Your task to perform on an android device: find photos in the google photos app Image 0: 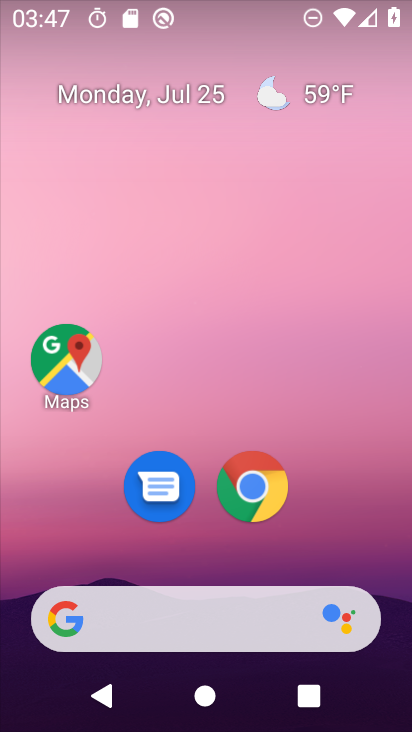
Step 0: drag from (179, 492) to (205, 0)
Your task to perform on an android device: find photos in the google photos app Image 1: 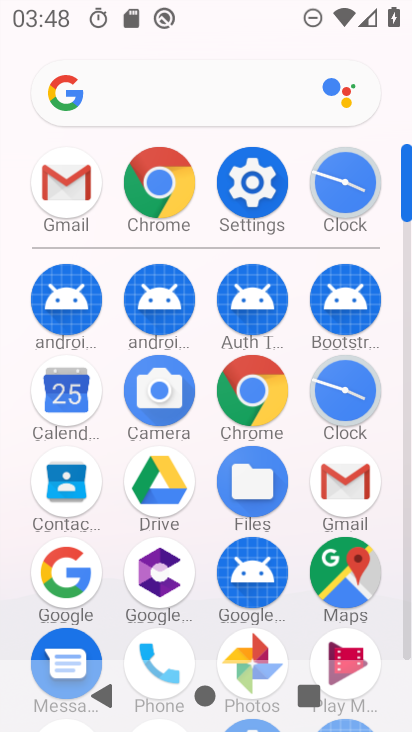
Step 1: click (257, 654)
Your task to perform on an android device: find photos in the google photos app Image 2: 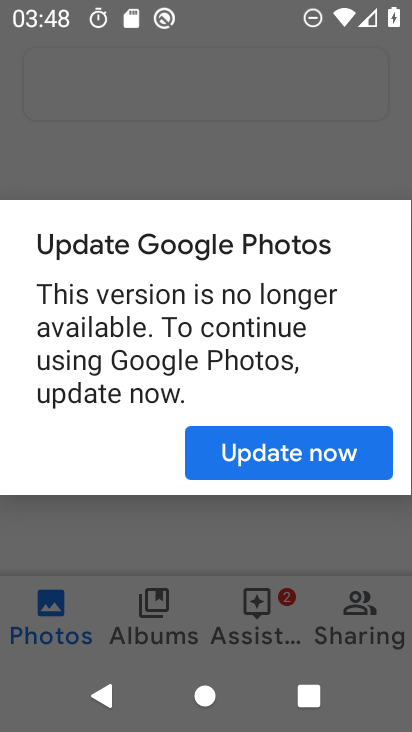
Step 2: click (274, 409)
Your task to perform on an android device: find photos in the google photos app Image 3: 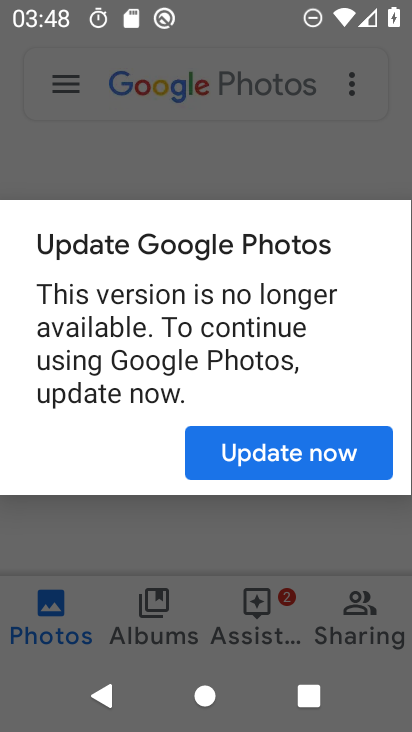
Step 3: click (267, 444)
Your task to perform on an android device: find photos in the google photos app Image 4: 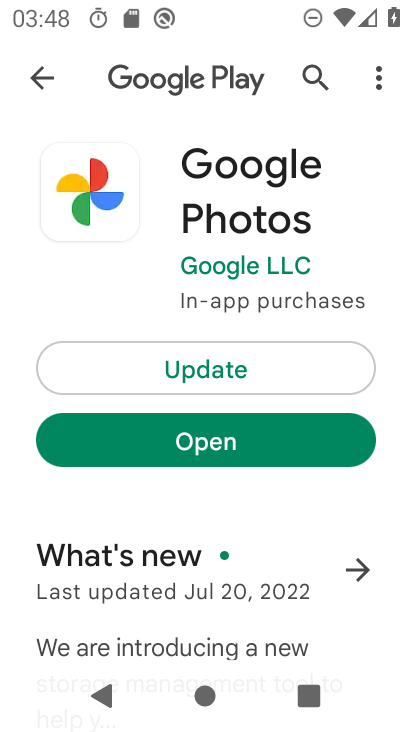
Step 4: click (242, 442)
Your task to perform on an android device: find photos in the google photos app Image 5: 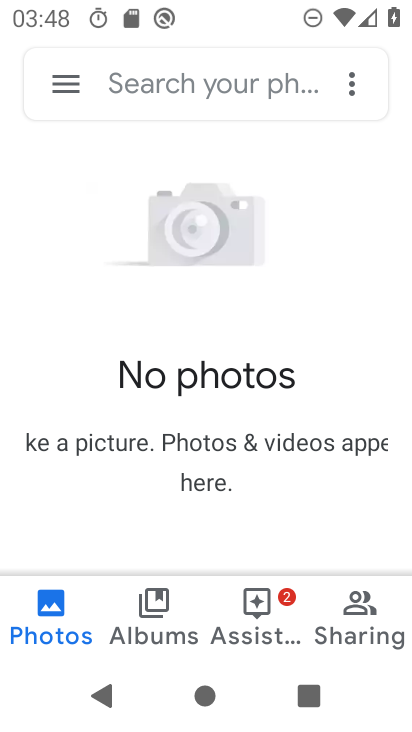
Step 5: click (61, 607)
Your task to perform on an android device: find photos in the google photos app Image 6: 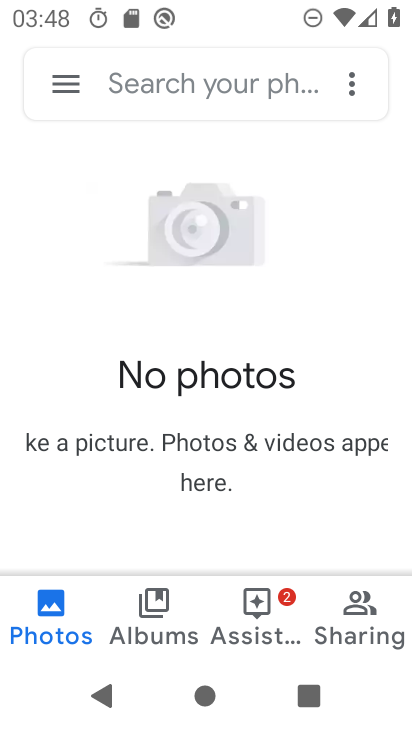
Step 6: task complete